Your task to perform on an android device: turn off picture-in-picture Image 0: 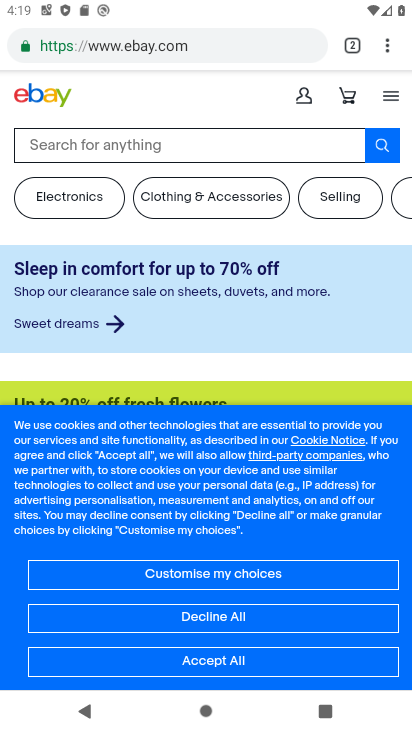
Step 0: press home button
Your task to perform on an android device: turn off picture-in-picture Image 1: 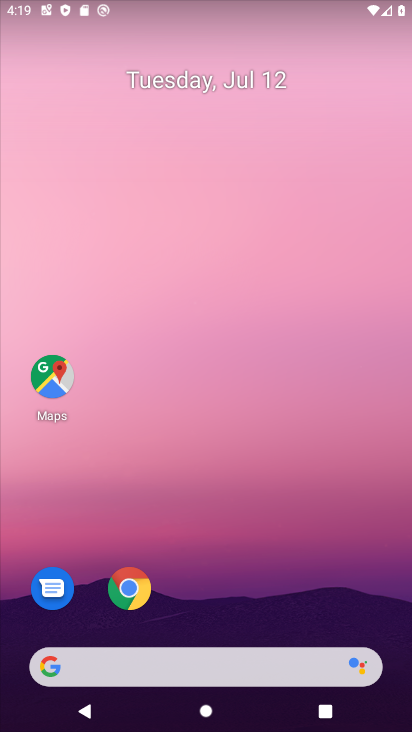
Step 1: click (139, 579)
Your task to perform on an android device: turn off picture-in-picture Image 2: 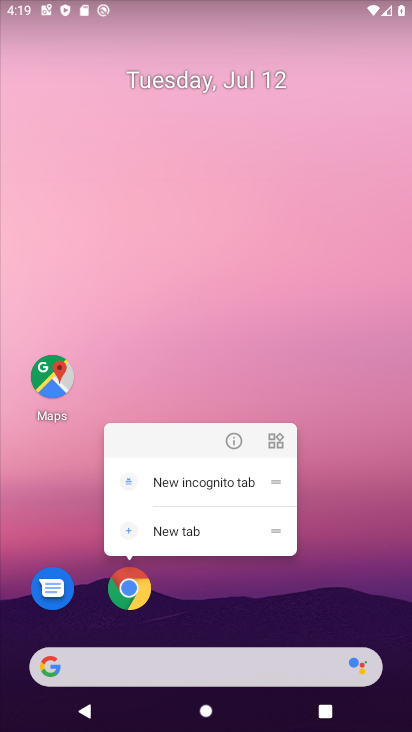
Step 2: click (226, 443)
Your task to perform on an android device: turn off picture-in-picture Image 3: 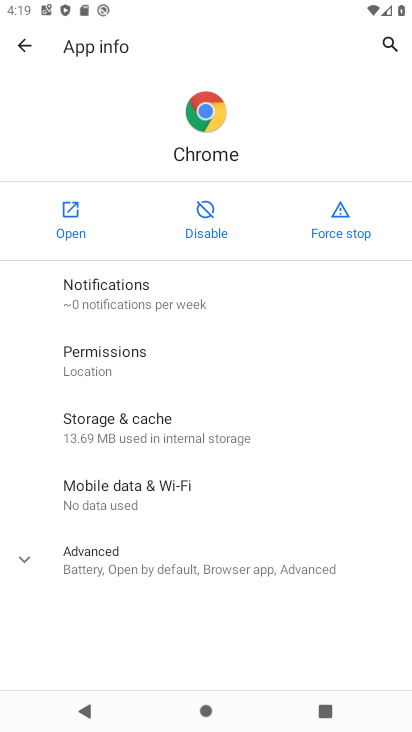
Step 3: click (185, 560)
Your task to perform on an android device: turn off picture-in-picture Image 4: 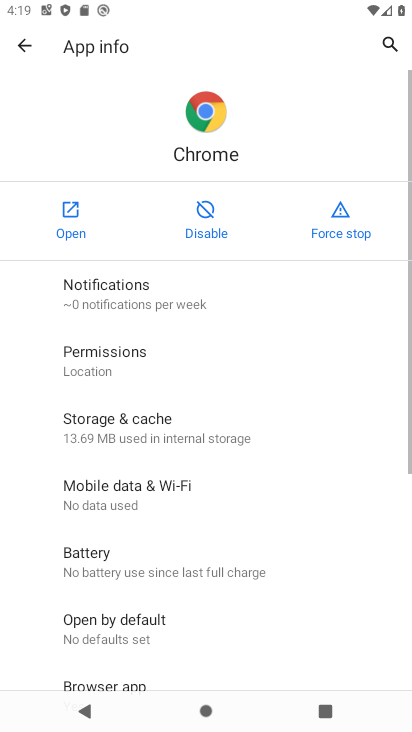
Step 4: drag from (200, 631) to (253, 292)
Your task to perform on an android device: turn off picture-in-picture Image 5: 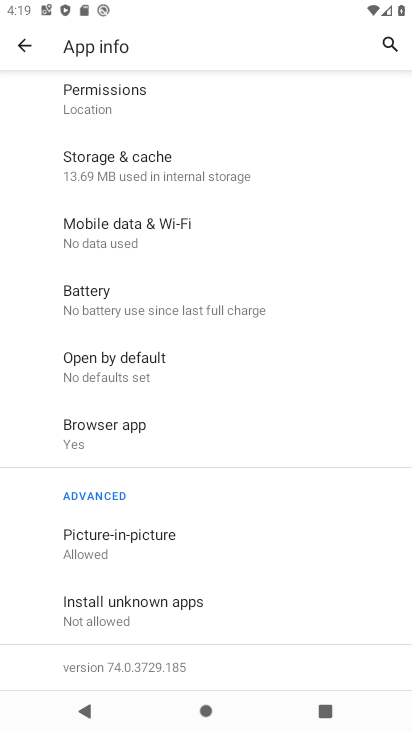
Step 5: click (170, 551)
Your task to perform on an android device: turn off picture-in-picture Image 6: 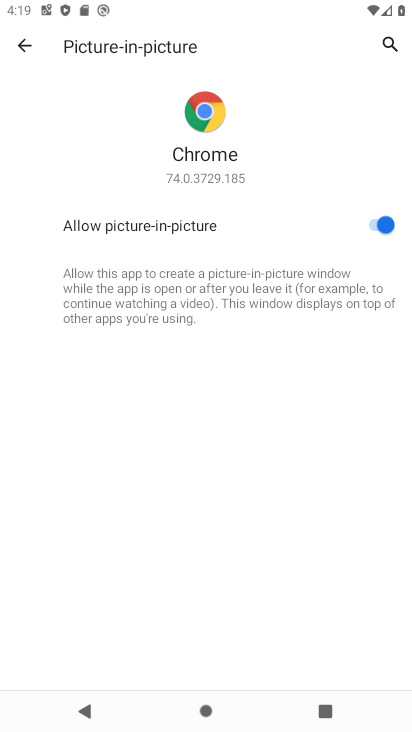
Step 6: click (379, 230)
Your task to perform on an android device: turn off picture-in-picture Image 7: 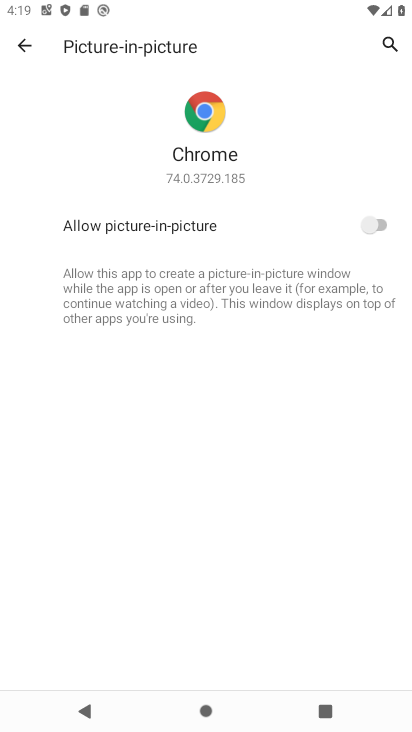
Step 7: task complete